Your task to perform on an android device: Go to settings Image 0: 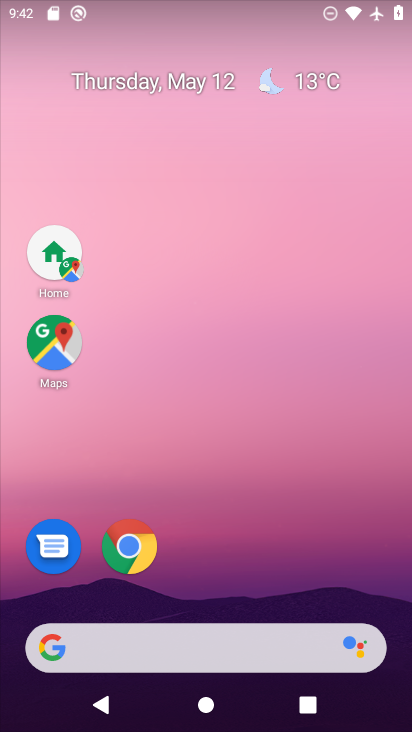
Step 0: drag from (243, 616) to (388, 102)
Your task to perform on an android device: Go to settings Image 1: 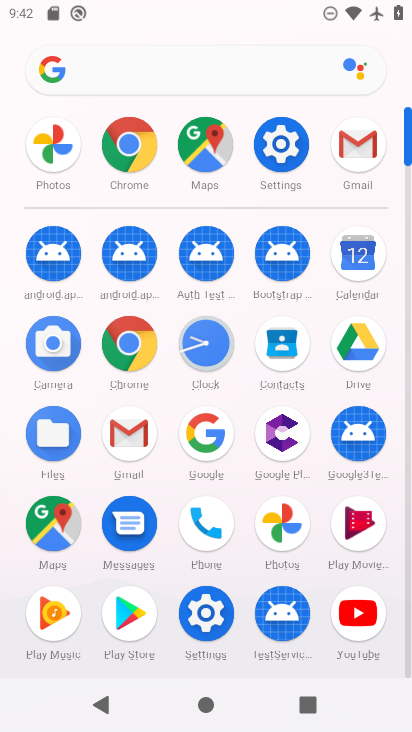
Step 1: click (280, 154)
Your task to perform on an android device: Go to settings Image 2: 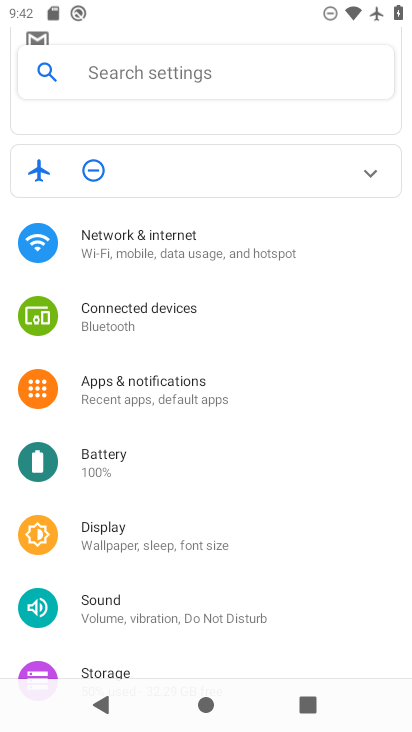
Step 2: task complete